Your task to perform on an android device: Search for vegetarian restaurants on Maps Image 0: 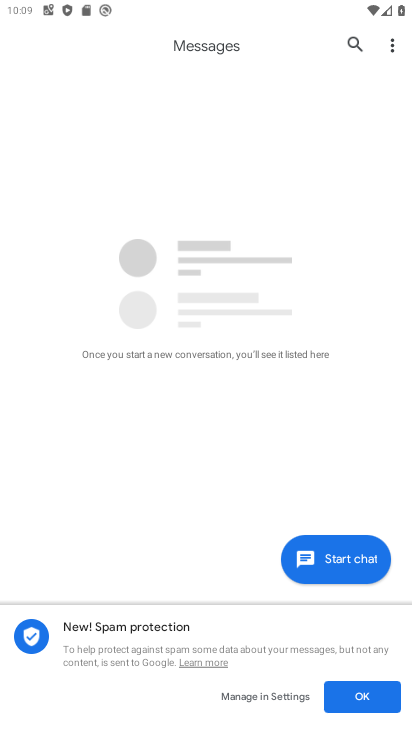
Step 0: press home button
Your task to perform on an android device: Search for vegetarian restaurants on Maps Image 1: 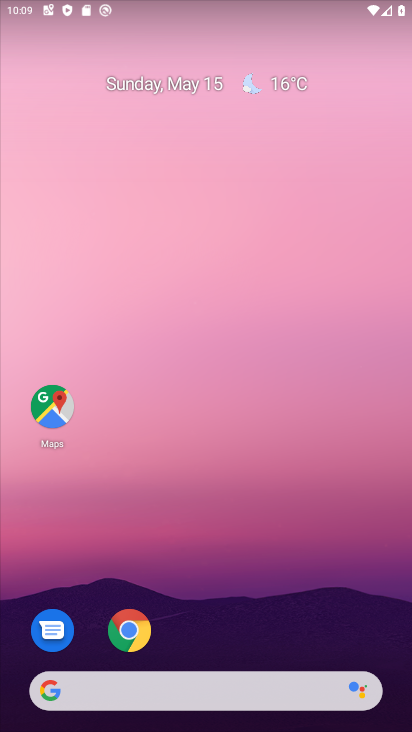
Step 1: click (57, 423)
Your task to perform on an android device: Search for vegetarian restaurants on Maps Image 2: 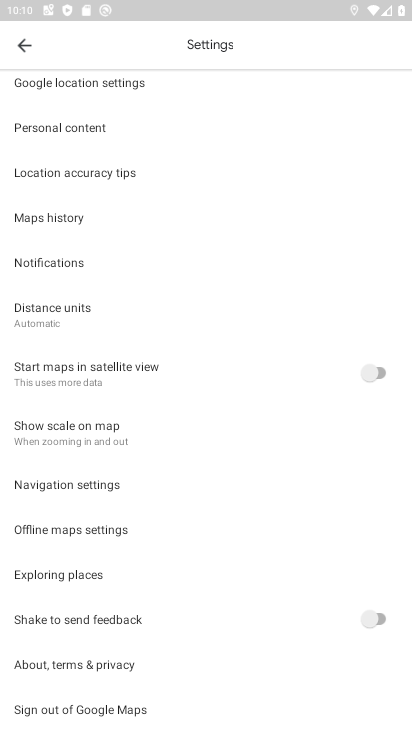
Step 2: click (24, 43)
Your task to perform on an android device: Search for vegetarian restaurants on Maps Image 3: 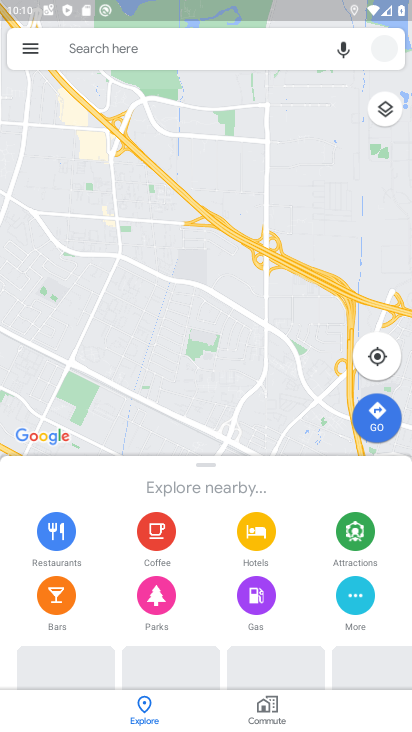
Step 3: click (108, 48)
Your task to perform on an android device: Search for vegetarian restaurants on Maps Image 4: 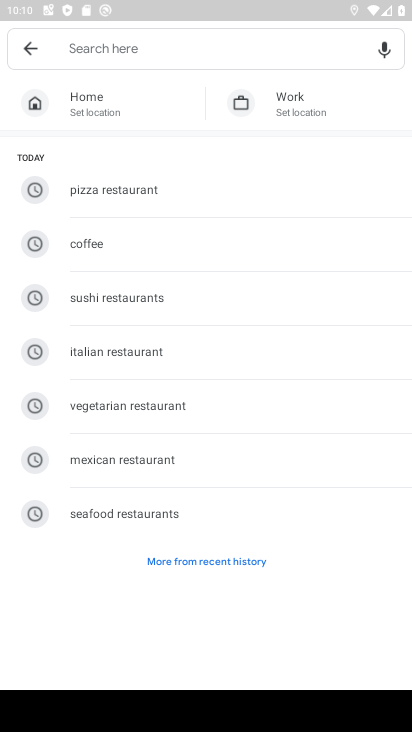
Step 4: click (138, 398)
Your task to perform on an android device: Search for vegetarian restaurants on Maps Image 5: 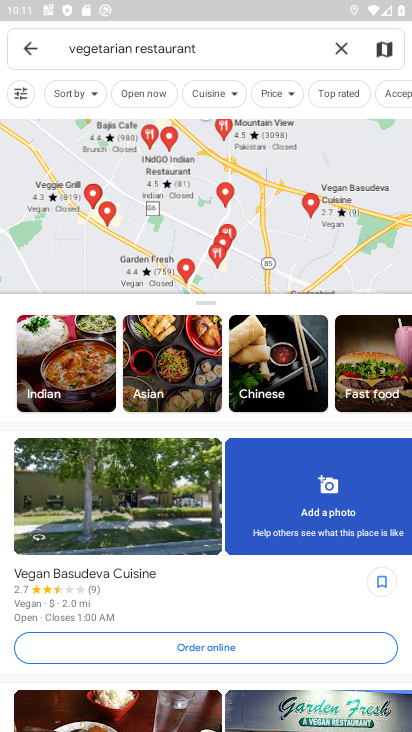
Step 5: task complete